Your task to perform on an android device: toggle translation in the chrome app Image 0: 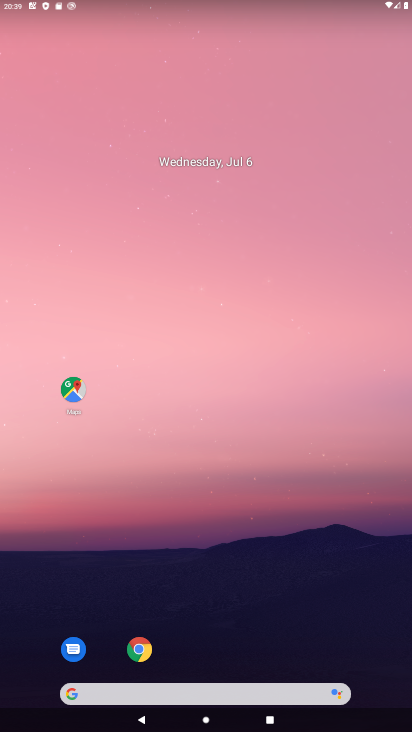
Step 0: click (131, 657)
Your task to perform on an android device: toggle translation in the chrome app Image 1: 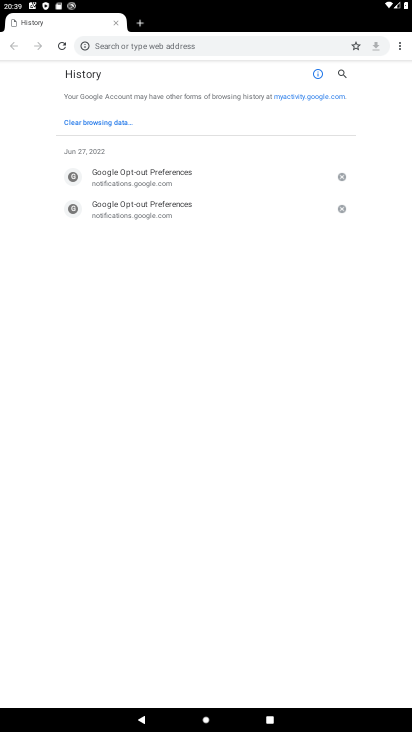
Step 1: click (402, 51)
Your task to perform on an android device: toggle translation in the chrome app Image 2: 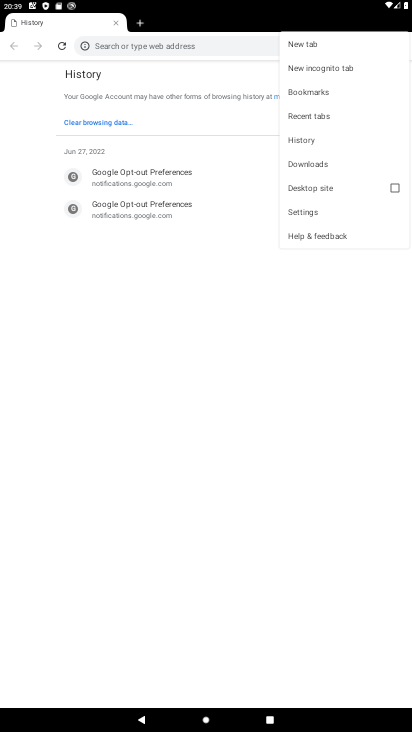
Step 2: click (316, 212)
Your task to perform on an android device: toggle translation in the chrome app Image 3: 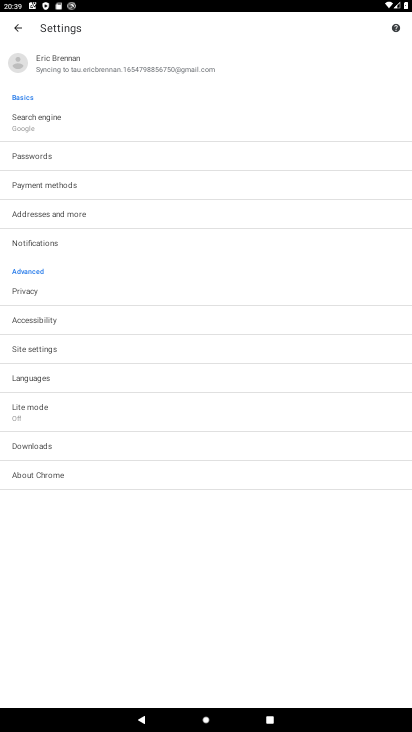
Step 3: click (53, 376)
Your task to perform on an android device: toggle translation in the chrome app Image 4: 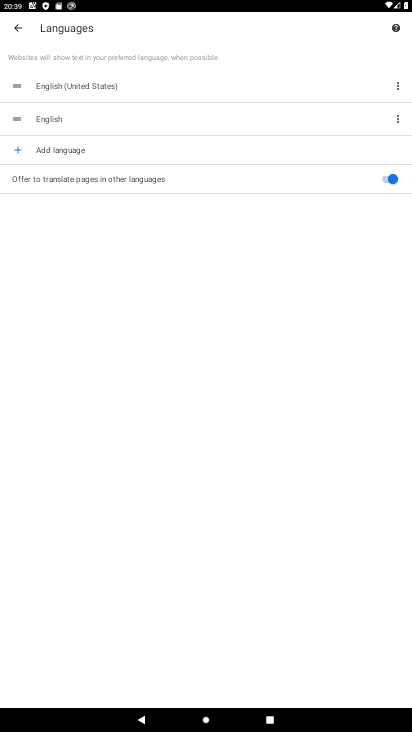
Step 4: click (378, 173)
Your task to perform on an android device: toggle translation in the chrome app Image 5: 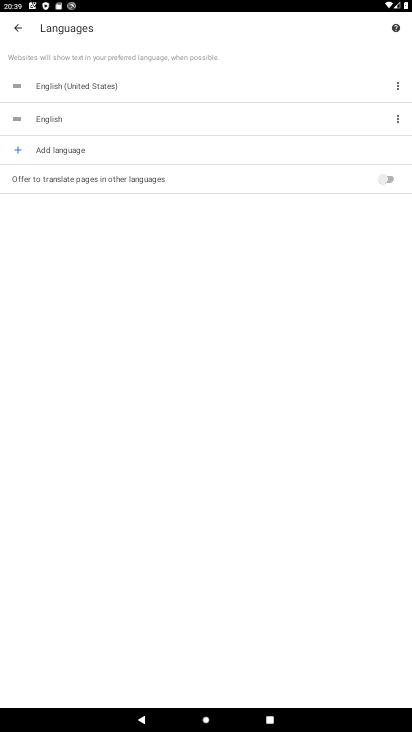
Step 5: task complete